Your task to perform on an android device: check data usage Image 0: 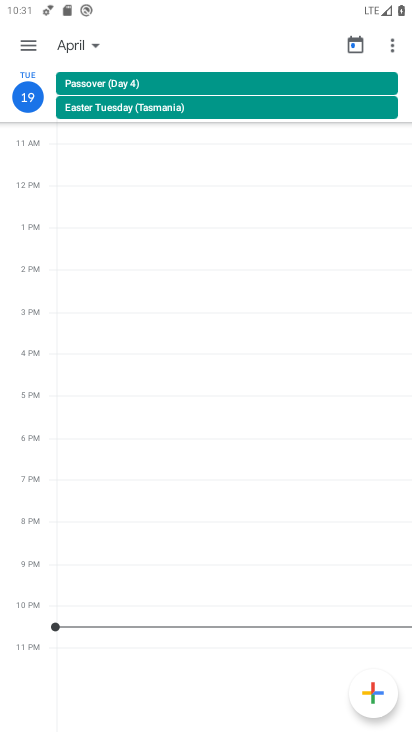
Step 0: press home button
Your task to perform on an android device: check data usage Image 1: 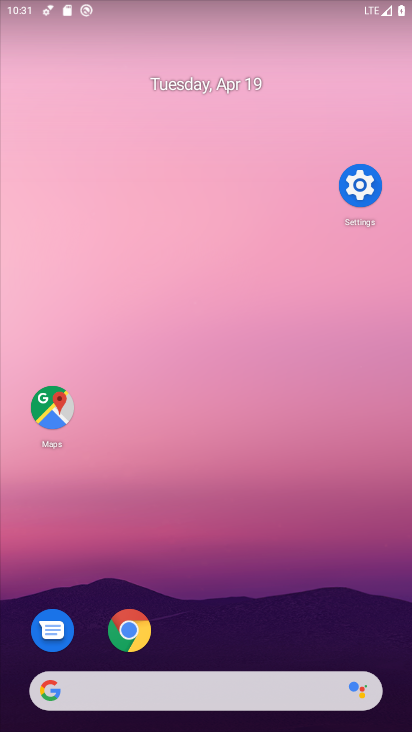
Step 1: drag from (241, 675) to (253, 105)
Your task to perform on an android device: check data usage Image 2: 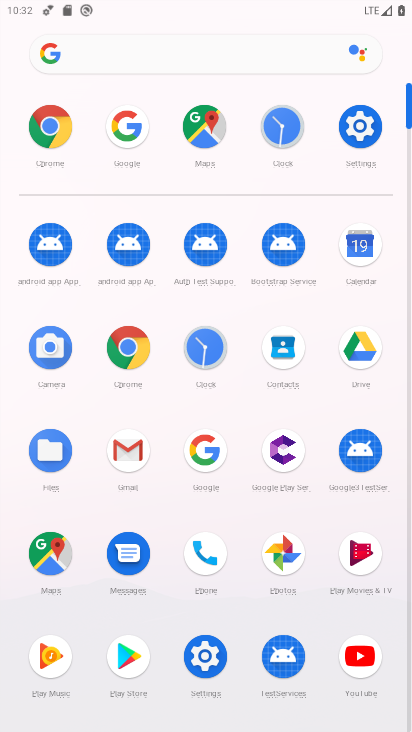
Step 2: click (373, 142)
Your task to perform on an android device: check data usage Image 3: 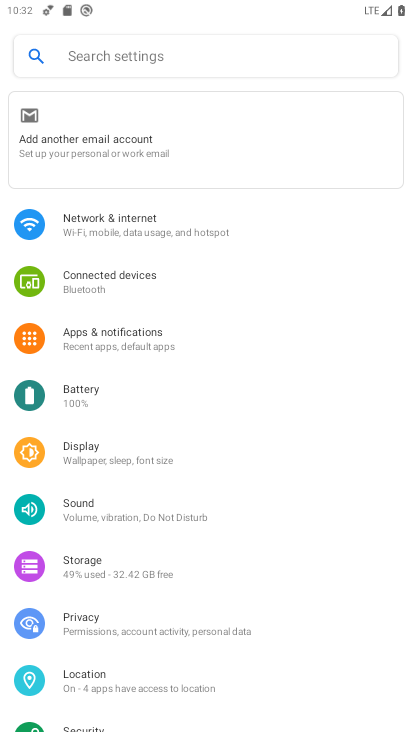
Step 3: click (179, 241)
Your task to perform on an android device: check data usage Image 4: 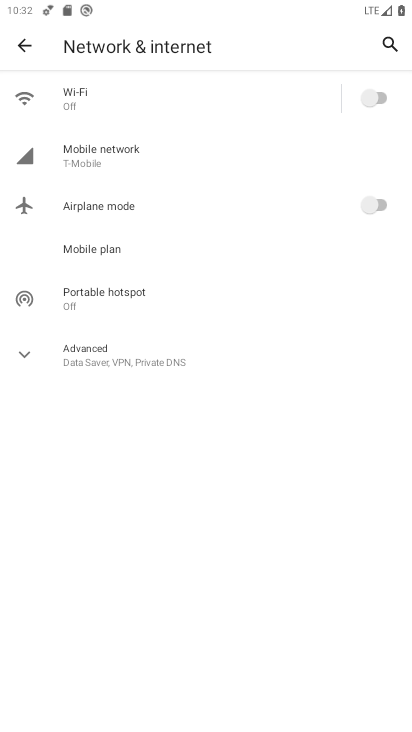
Step 4: click (167, 159)
Your task to perform on an android device: check data usage Image 5: 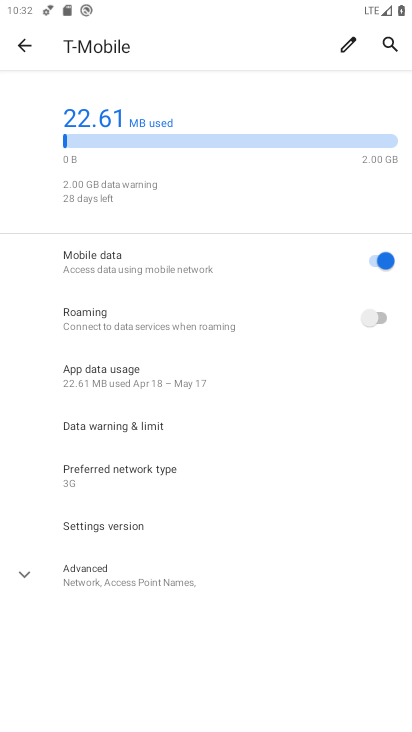
Step 5: click (174, 387)
Your task to perform on an android device: check data usage Image 6: 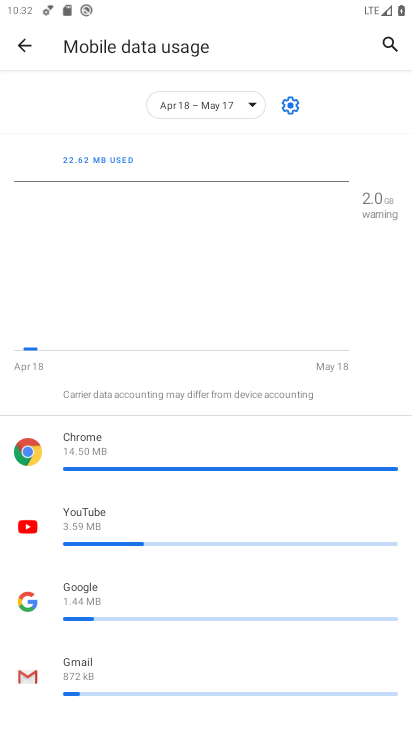
Step 6: task complete